Your task to perform on an android device: turn vacation reply on in the gmail app Image 0: 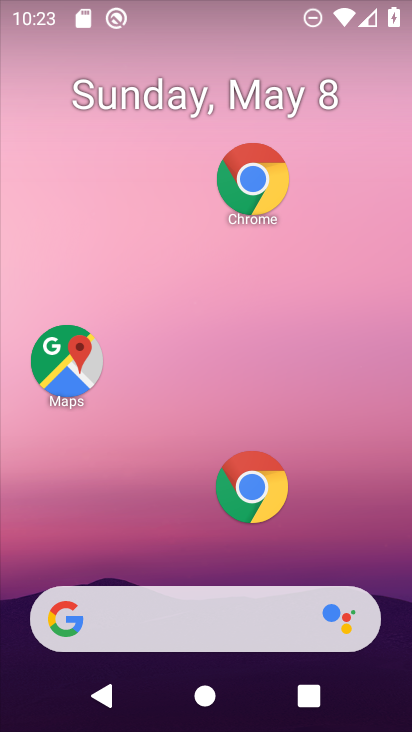
Step 0: drag from (155, 532) to (181, 22)
Your task to perform on an android device: turn vacation reply on in the gmail app Image 1: 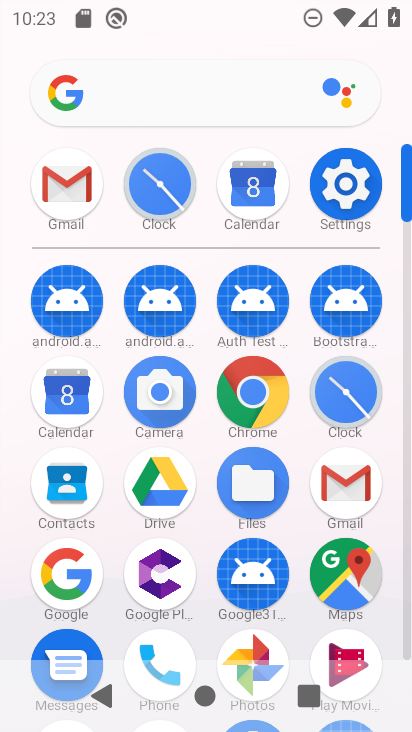
Step 1: click (72, 165)
Your task to perform on an android device: turn vacation reply on in the gmail app Image 2: 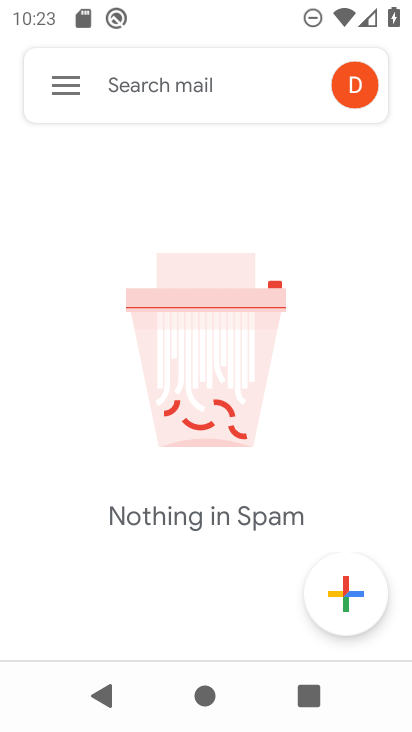
Step 2: click (74, 75)
Your task to perform on an android device: turn vacation reply on in the gmail app Image 3: 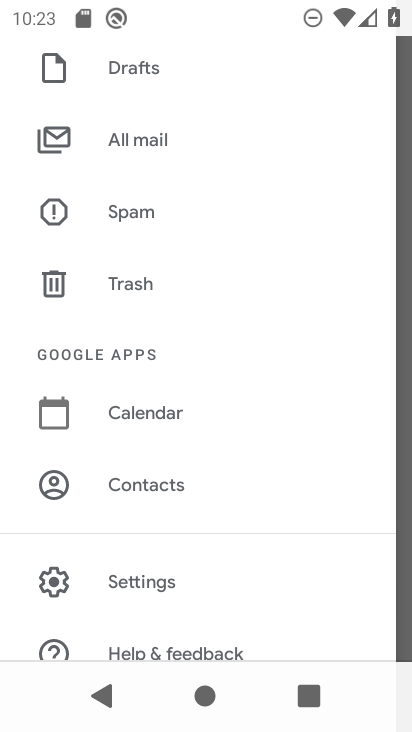
Step 3: click (138, 586)
Your task to perform on an android device: turn vacation reply on in the gmail app Image 4: 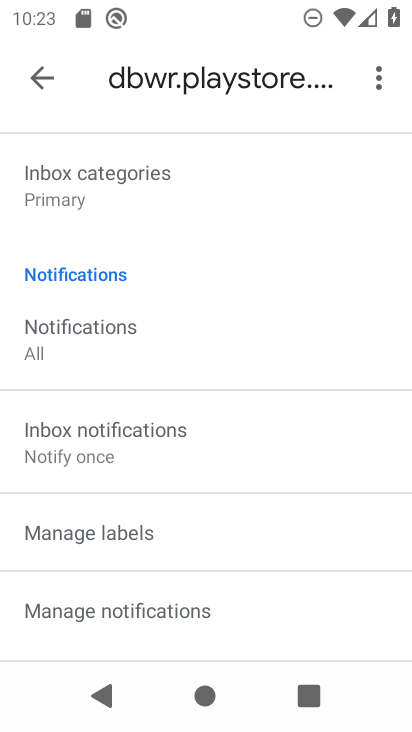
Step 4: drag from (186, 533) to (234, 86)
Your task to perform on an android device: turn vacation reply on in the gmail app Image 5: 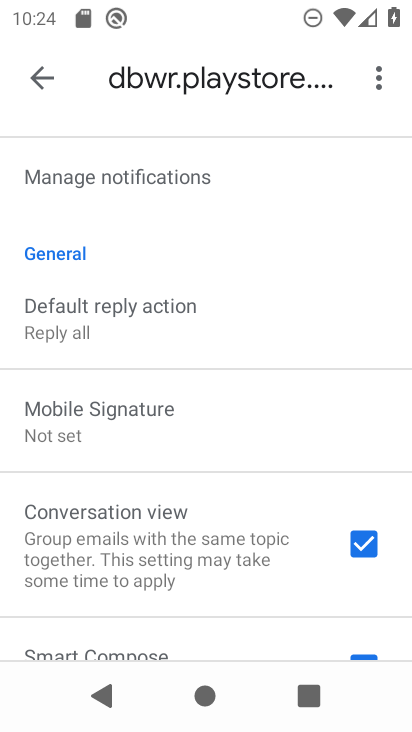
Step 5: drag from (210, 550) to (246, 80)
Your task to perform on an android device: turn vacation reply on in the gmail app Image 6: 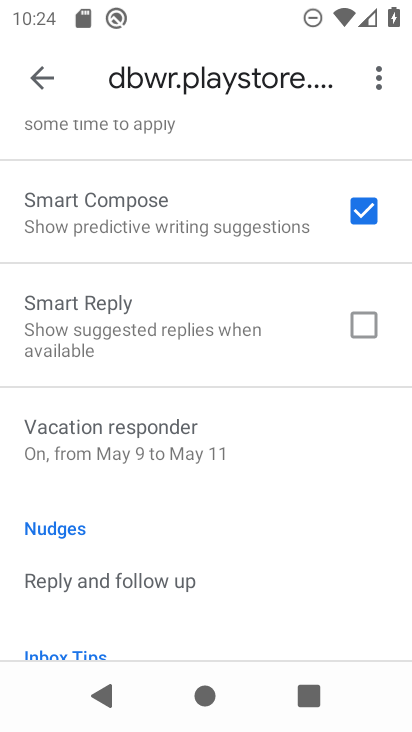
Step 6: click (220, 440)
Your task to perform on an android device: turn vacation reply on in the gmail app Image 7: 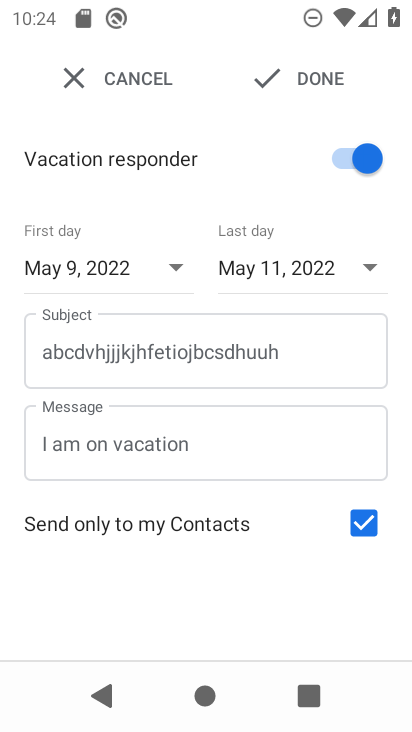
Step 7: task complete